Your task to perform on an android device: Open calendar and show me the first week of next month Image 0: 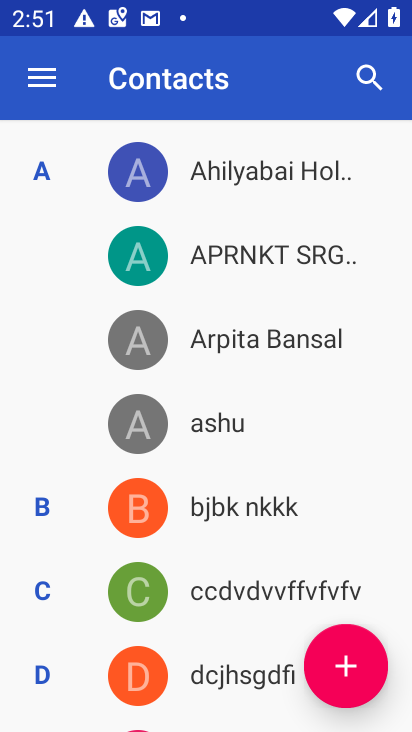
Step 0: press home button
Your task to perform on an android device: Open calendar and show me the first week of next month Image 1: 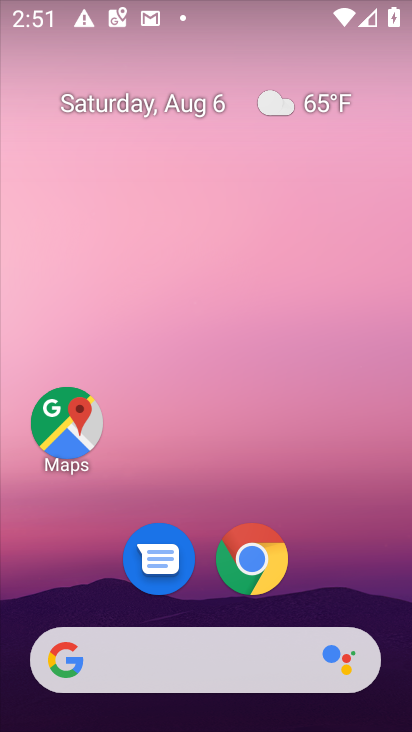
Step 1: drag from (204, 511) to (240, 138)
Your task to perform on an android device: Open calendar and show me the first week of next month Image 2: 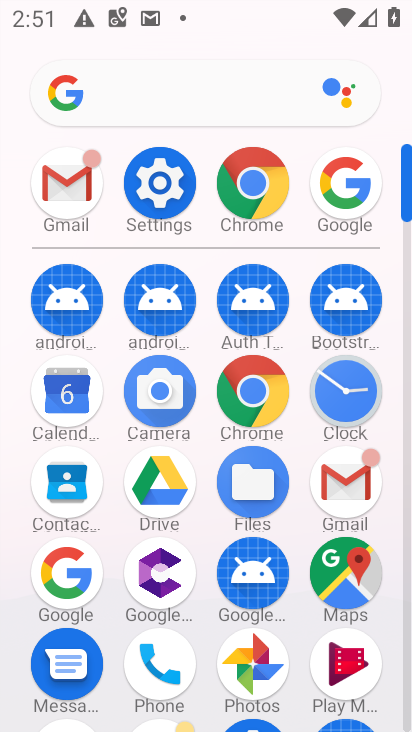
Step 2: click (13, 416)
Your task to perform on an android device: Open calendar and show me the first week of next month Image 3: 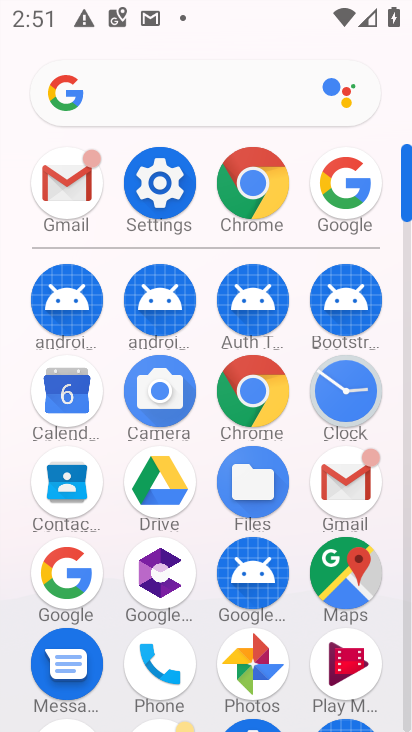
Step 3: click (44, 410)
Your task to perform on an android device: Open calendar and show me the first week of next month Image 4: 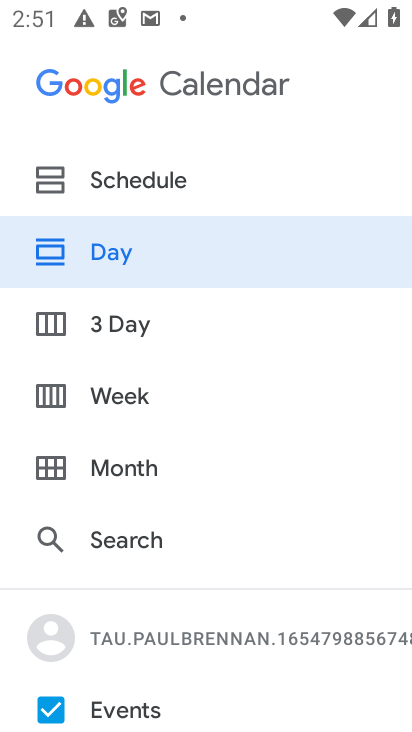
Step 4: click (133, 186)
Your task to perform on an android device: Open calendar and show me the first week of next month Image 5: 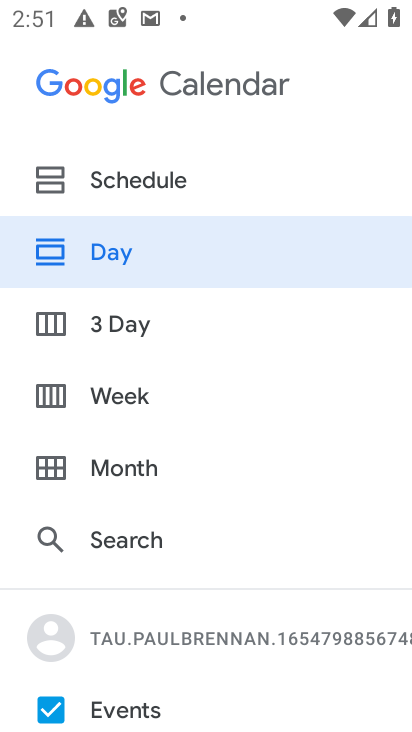
Step 5: click (147, 177)
Your task to perform on an android device: Open calendar and show me the first week of next month Image 6: 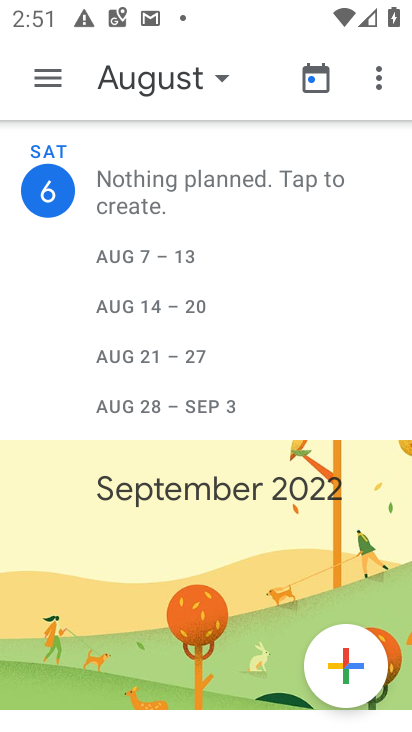
Step 6: click (204, 93)
Your task to perform on an android device: Open calendar and show me the first week of next month Image 7: 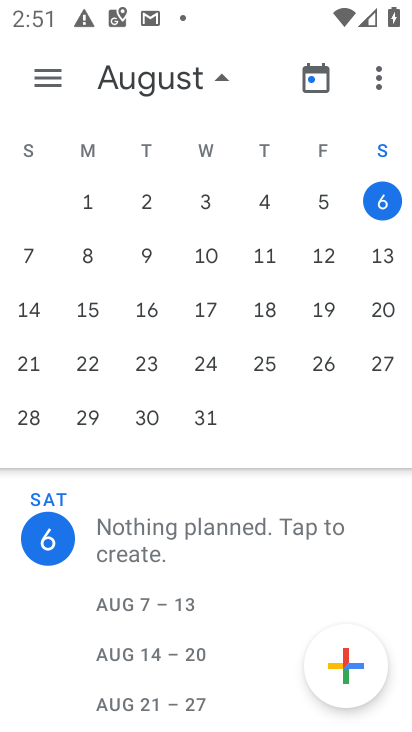
Step 7: task complete